Your task to perform on an android device: Open Google Chrome and click the shortcut for Amazon.com Image 0: 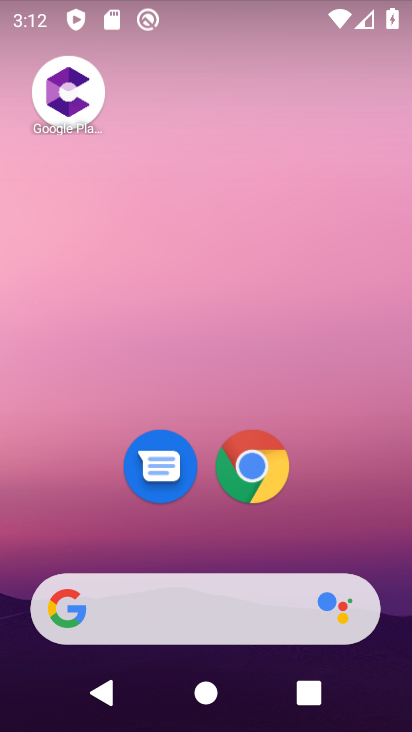
Step 0: click (251, 480)
Your task to perform on an android device: Open Google Chrome and click the shortcut for Amazon.com Image 1: 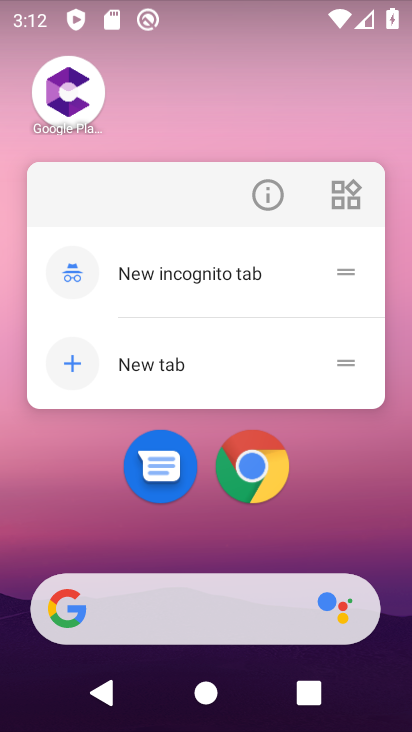
Step 1: click (254, 484)
Your task to perform on an android device: Open Google Chrome and click the shortcut for Amazon.com Image 2: 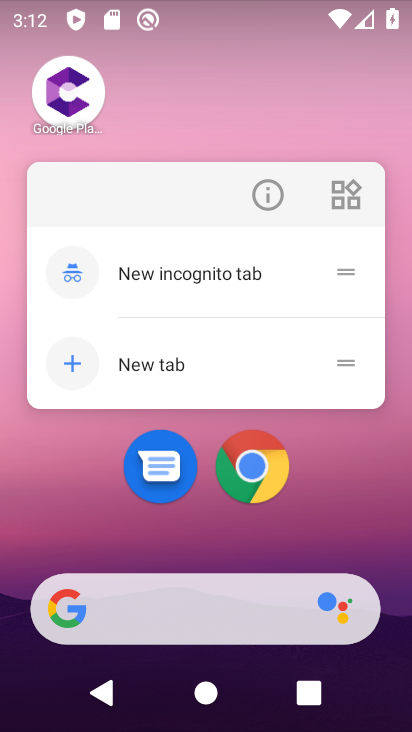
Step 2: click (254, 484)
Your task to perform on an android device: Open Google Chrome and click the shortcut for Amazon.com Image 3: 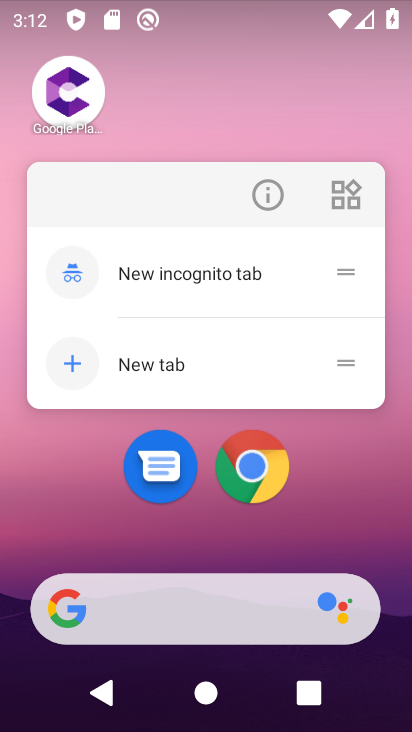
Step 3: click (254, 484)
Your task to perform on an android device: Open Google Chrome and click the shortcut for Amazon.com Image 4: 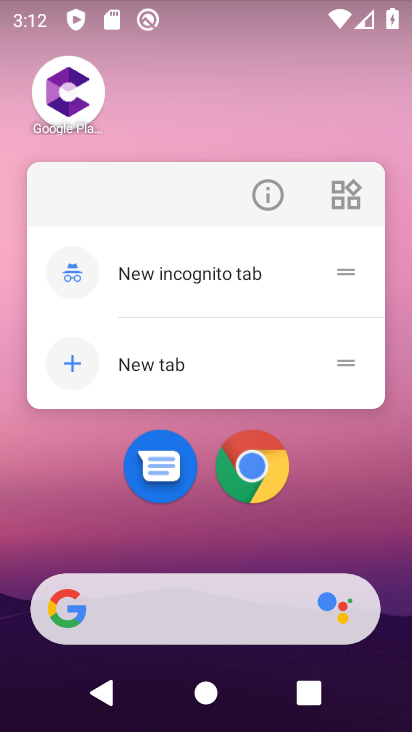
Step 4: click (254, 484)
Your task to perform on an android device: Open Google Chrome and click the shortcut for Amazon.com Image 5: 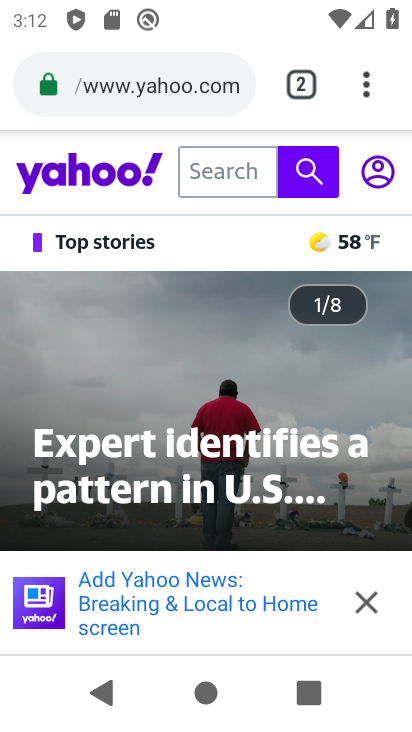
Step 5: click (313, 81)
Your task to perform on an android device: Open Google Chrome and click the shortcut for Amazon.com Image 6: 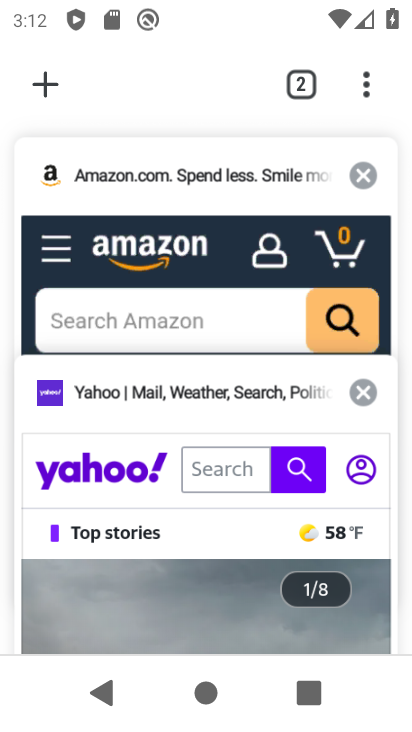
Step 6: click (56, 77)
Your task to perform on an android device: Open Google Chrome and click the shortcut for Amazon.com Image 7: 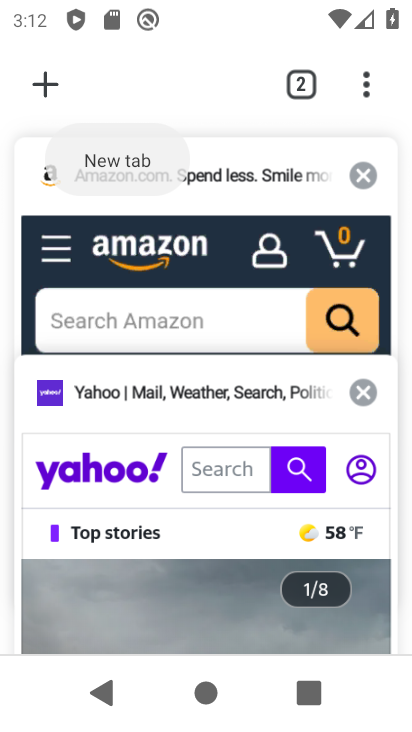
Step 7: click (52, 86)
Your task to perform on an android device: Open Google Chrome and click the shortcut for Amazon.com Image 8: 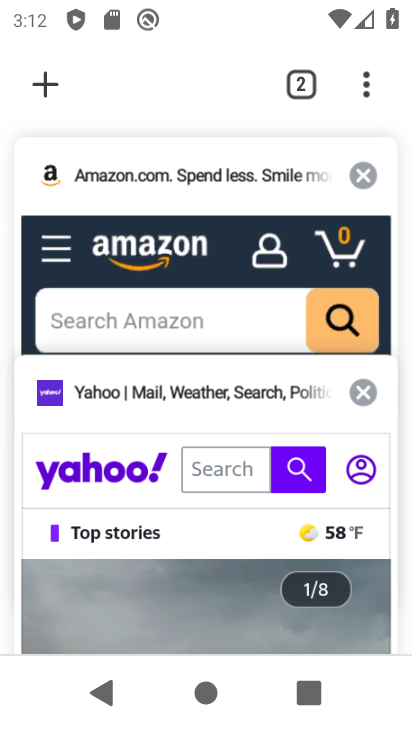
Step 8: click (197, 244)
Your task to perform on an android device: Open Google Chrome and click the shortcut for Amazon.com Image 9: 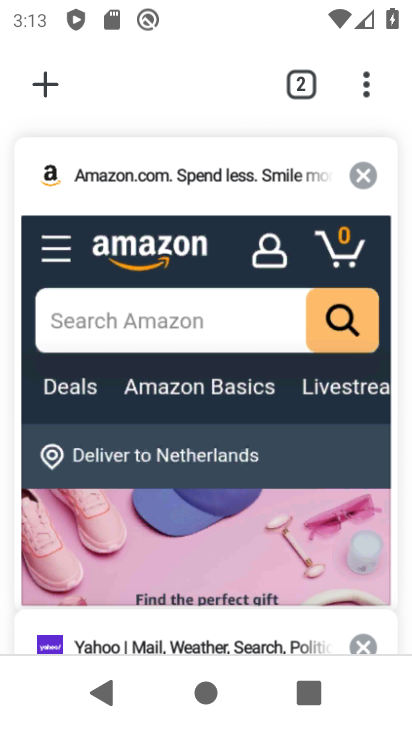
Step 9: click (249, 314)
Your task to perform on an android device: Open Google Chrome and click the shortcut for Amazon.com Image 10: 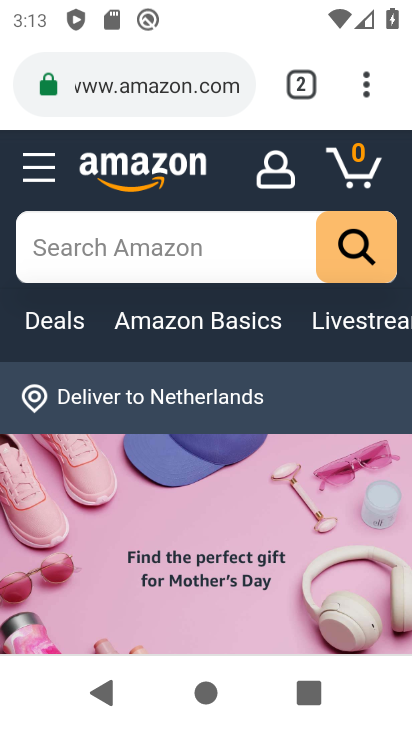
Step 10: task complete